Your task to perform on an android device: check battery use Image 0: 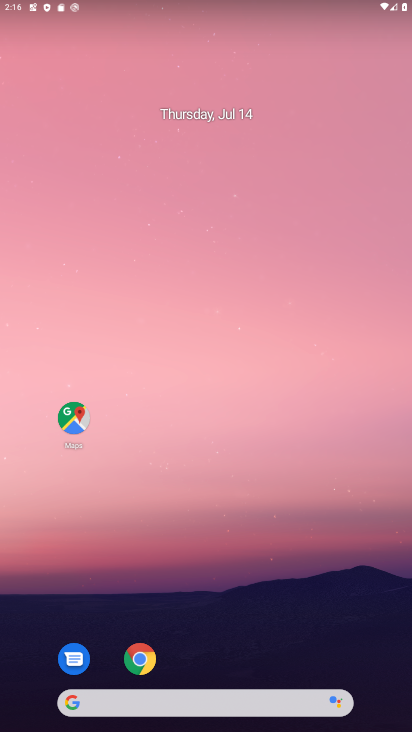
Step 0: press home button
Your task to perform on an android device: check battery use Image 1: 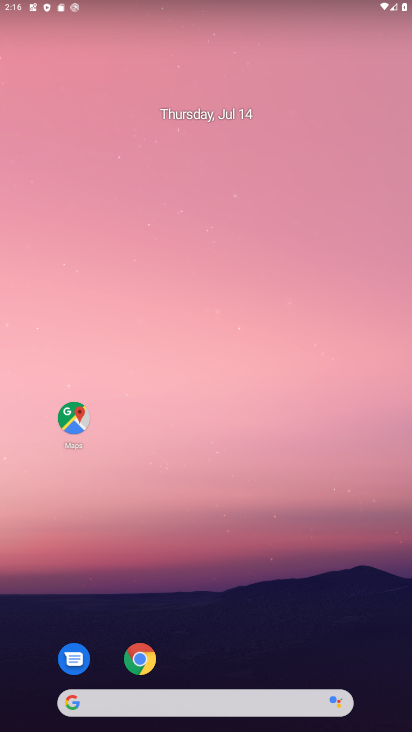
Step 1: drag from (226, 635) to (104, 7)
Your task to perform on an android device: check battery use Image 2: 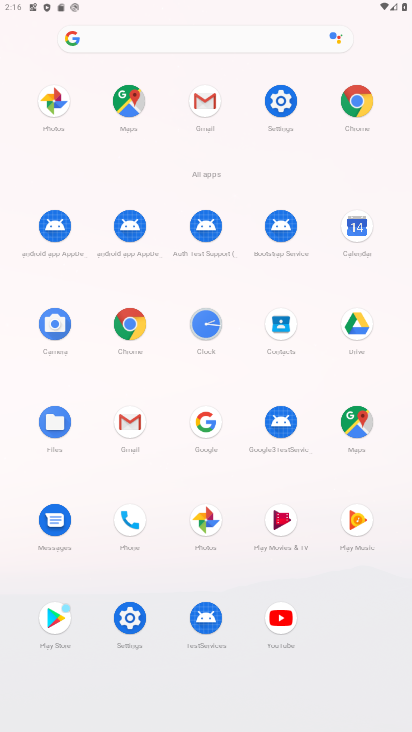
Step 2: click (283, 103)
Your task to perform on an android device: check battery use Image 3: 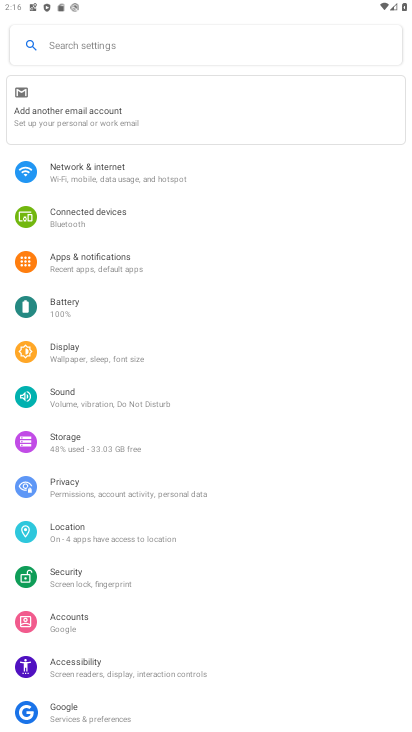
Step 3: click (59, 310)
Your task to perform on an android device: check battery use Image 4: 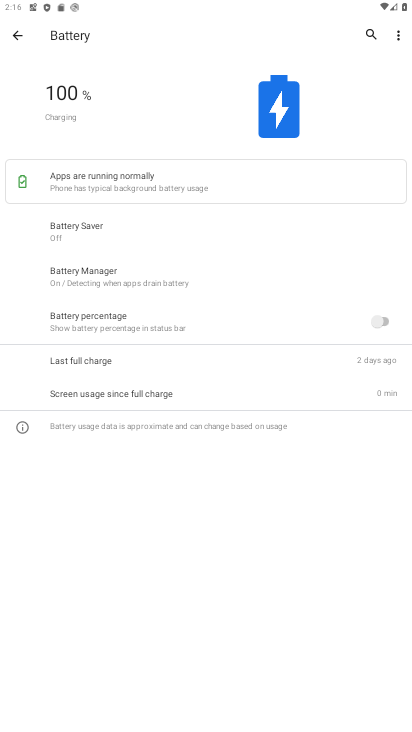
Step 4: click (396, 33)
Your task to perform on an android device: check battery use Image 5: 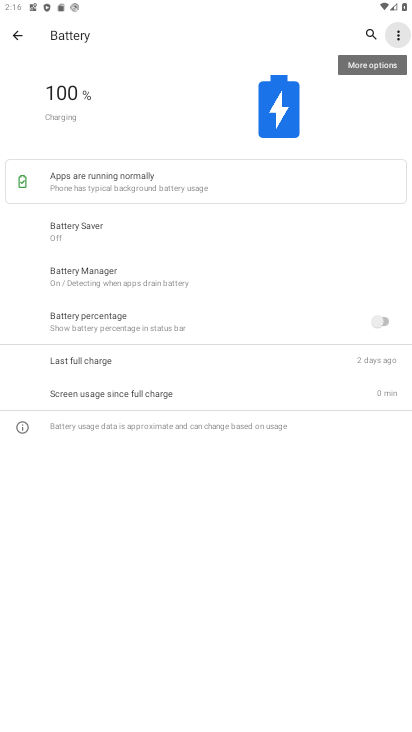
Step 5: click (396, 33)
Your task to perform on an android device: check battery use Image 6: 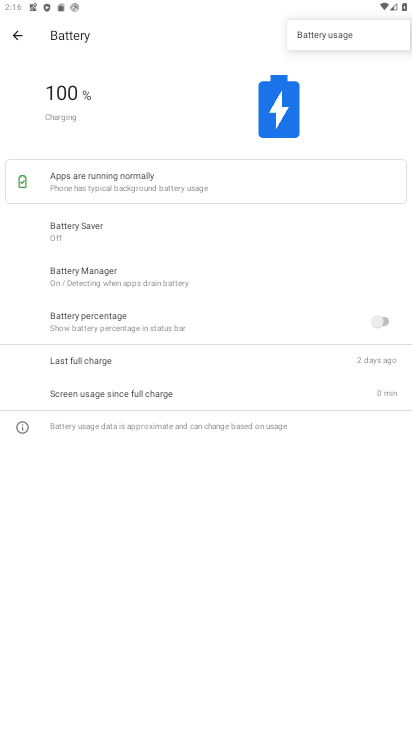
Step 6: click (321, 36)
Your task to perform on an android device: check battery use Image 7: 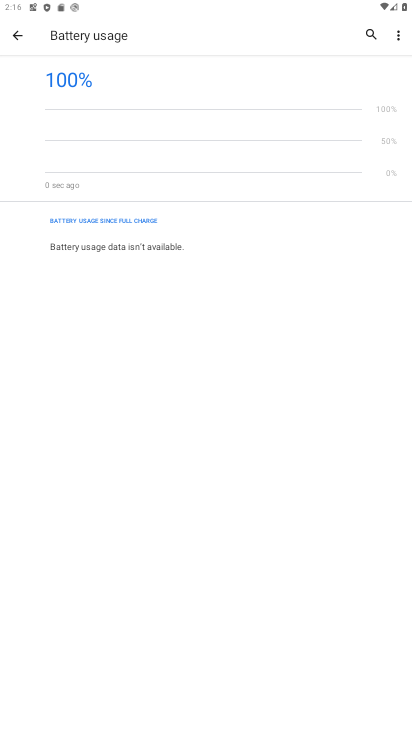
Step 7: task complete